Your task to perform on an android device: Go to accessibility settings Image 0: 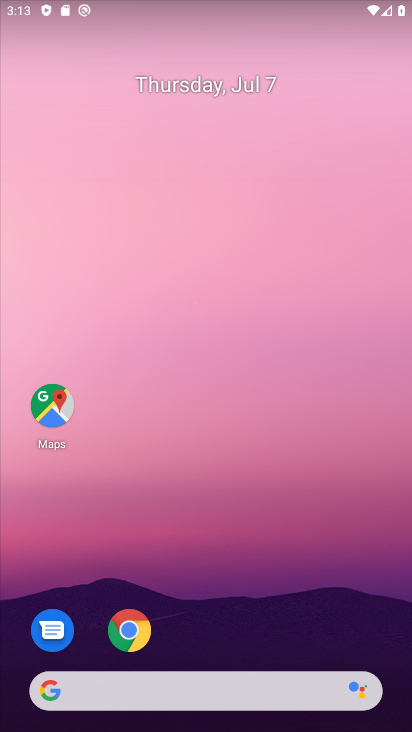
Step 0: drag from (346, 627) to (387, 102)
Your task to perform on an android device: Go to accessibility settings Image 1: 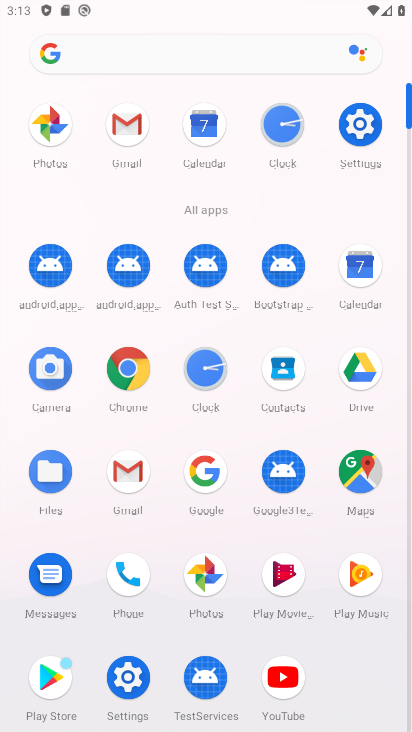
Step 1: click (362, 135)
Your task to perform on an android device: Go to accessibility settings Image 2: 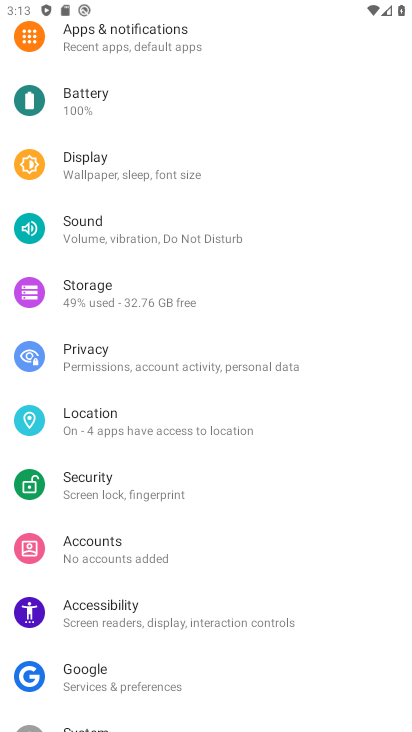
Step 2: drag from (343, 186) to (345, 319)
Your task to perform on an android device: Go to accessibility settings Image 3: 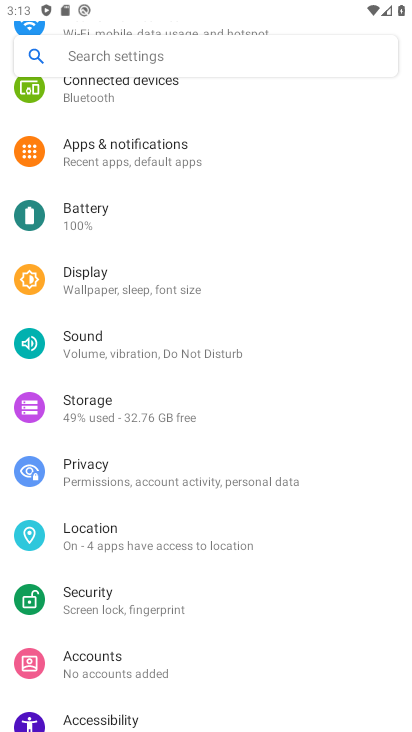
Step 3: drag from (339, 171) to (342, 325)
Your task to perform on an android device: Go to accessibility settings Image 4: 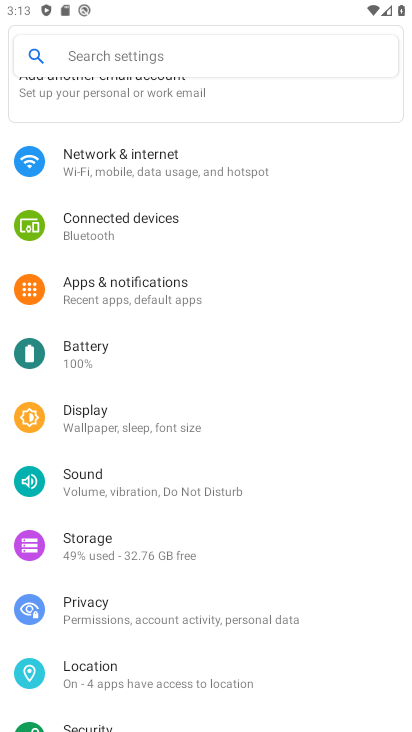
Step 4: drag from (340, 179) to (347, 384)
Your task to perform on an android device: Go to accessibility settings Image 5: 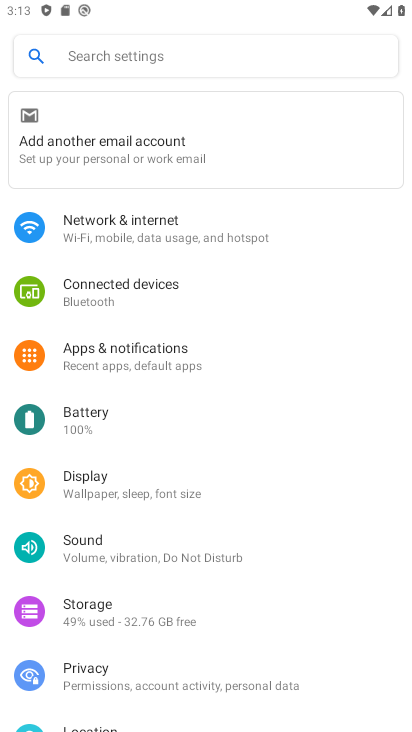
Step 5: drag from (336, 507) to (338, 365)
Your task to perform on an android device: Go to accessibility settings Image 6: 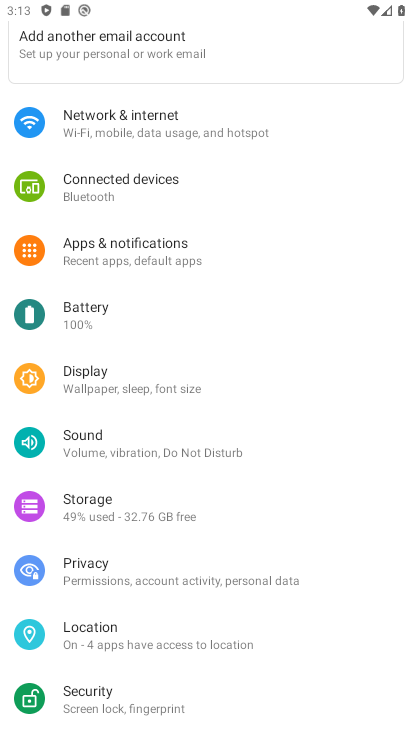
Step 6: drag from (331, 460) to (330, 343)
Your task to perform on an android device: Go to accessibility settings Image 7: 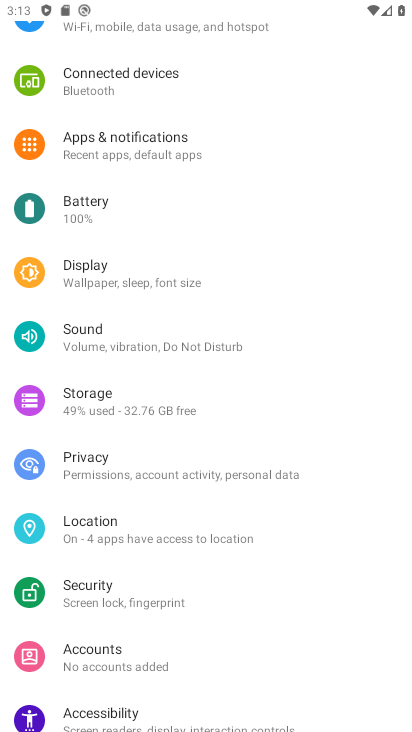
Step 7: drag from (320, 468) to (320, 278)
Your task to perform on an android device: Go to accessibility settings Image 8: 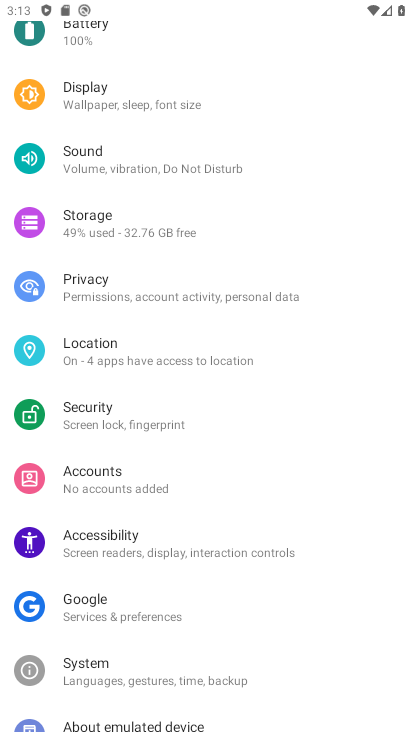
Step 8: drag from (319, 433) to (337, 274)
Your task to perform on an android device: Go to accessibility settings Image 9: 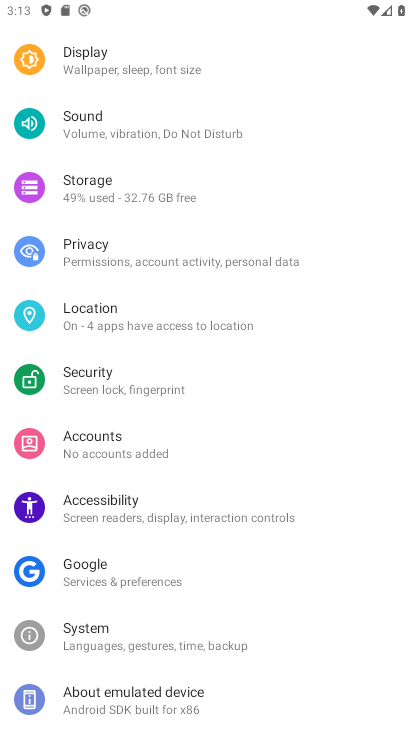
Step 9: click (227, 515)
Your task to perform on an android device: Go to accessibility settings Image 10: 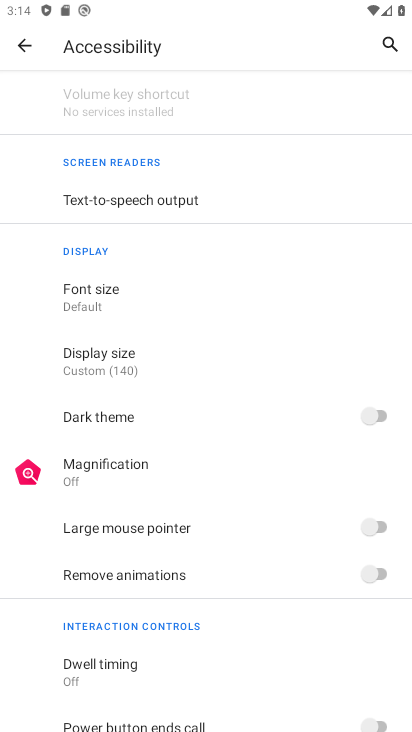
Step 10: task complete